Your task to perform on an android device: Open Yahoo.com Image 0: 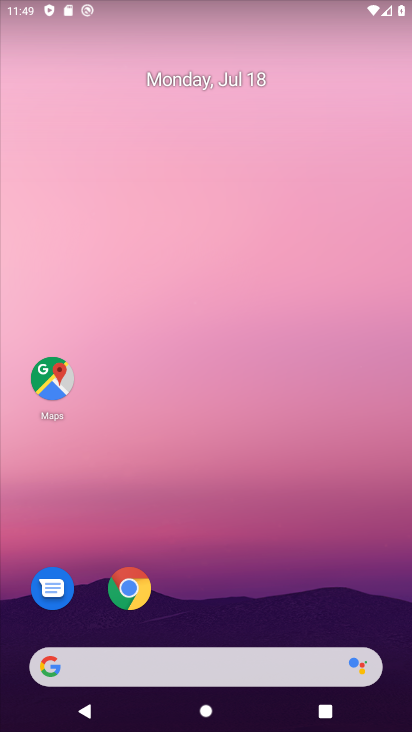
Step 0: drag from (234, 646) to (172, 103)
Your task to perform on an android device: Open Yahoo.com Image 1: 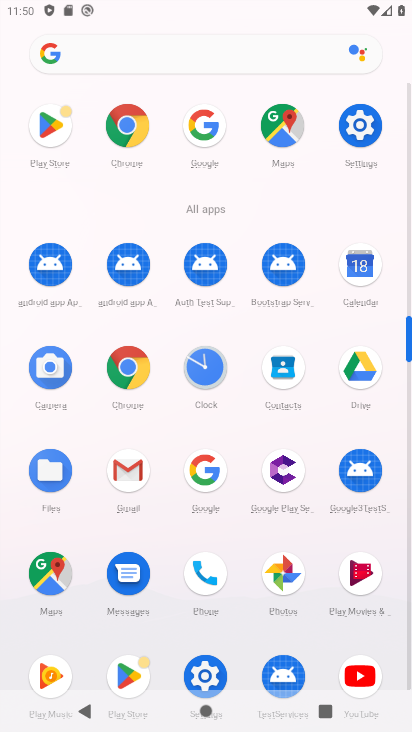
Step 1: click (119, 119)
Your task to perform on an android device: Open Yahoo.com Image 2: 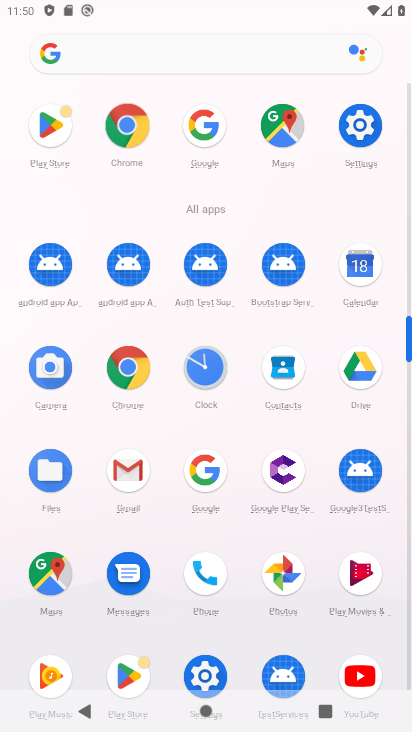
Step 2: click (124, 127)
Your task to perform on an android device: Open Yahoo.com Image 3: 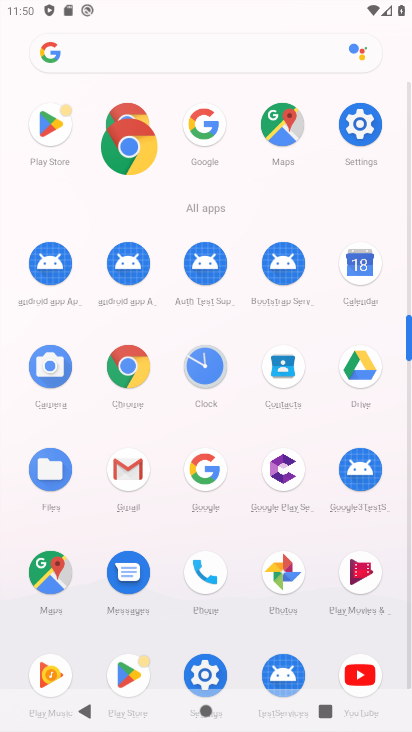
Step 3: click (137, 149)
Your task to perform on an android device: Open Yahoo.com Image 4: 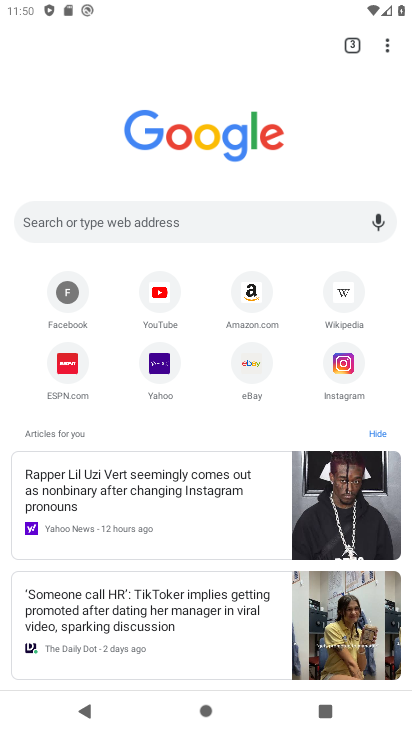
Step 4: click (161, 367)
Your task to perform on an android device: Open Yahoo.com Image 5: 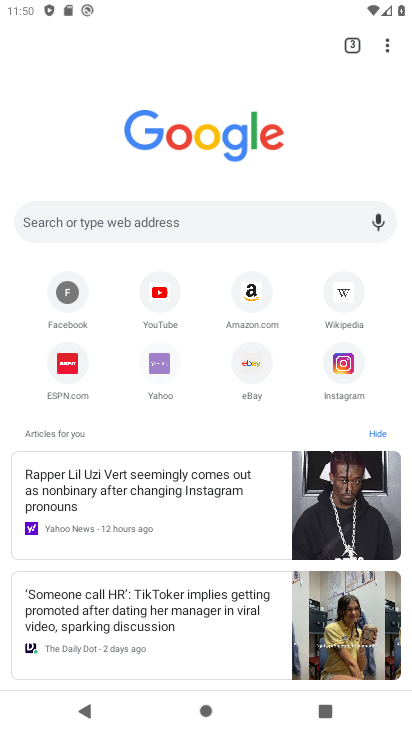
Step 5: click (161, 367)
Your task to perform on an android device: Open Yahoo.com Image 6: 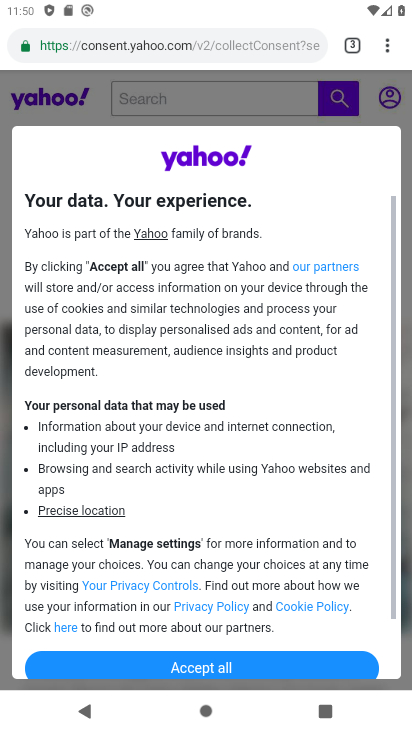
Step 6: task complete